Your task to perform on an android device: Open internet settings Image 0: 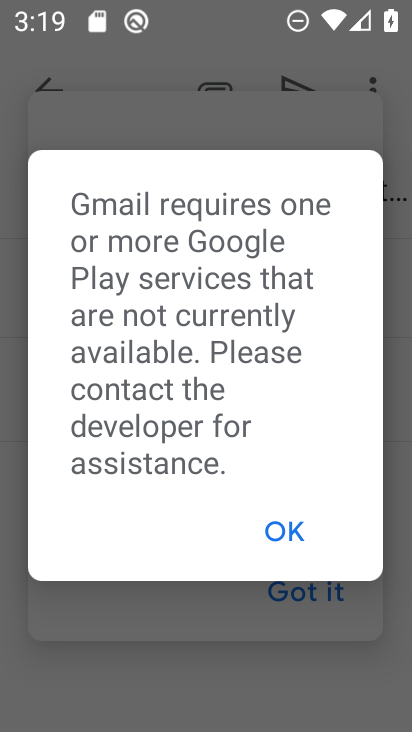
Step 0: press home button
Your task to perform on an android device: Open internet settings Image 1: 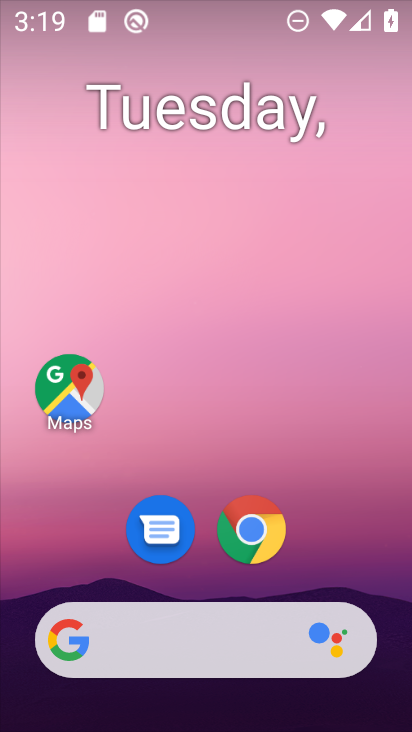
Step 1: drag from (348, 532) to (307, 202)
Your task to perform on an android device: Open internet settings Image 2: 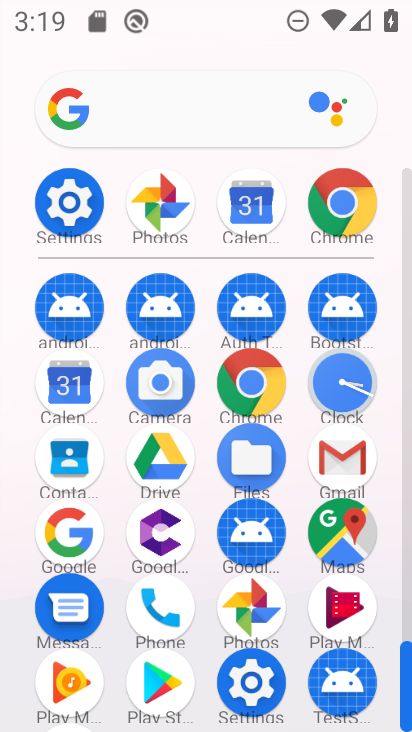
Step 2: click (53, 204)
Your task to perform on an android device: Open internet settings Image 3: 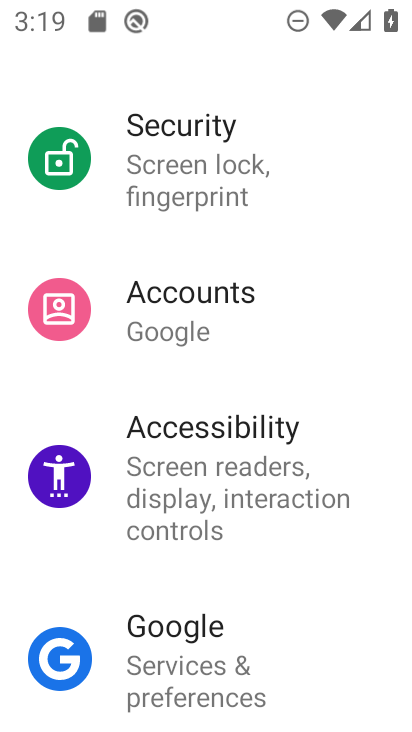
Step 3: drag from (191, 211) to (179, 619)
Your task to perform on an android device: Open internet settings Image 4: 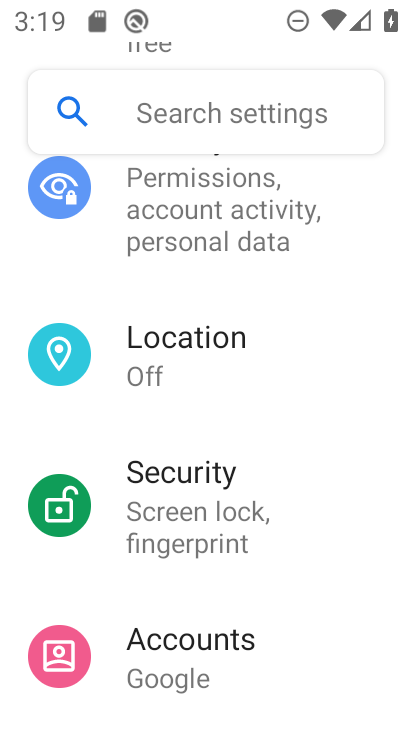
Step 4: drag from (198, 240) to (201, 641)
Your task to perform on an android device: Open internet settings Image 5: 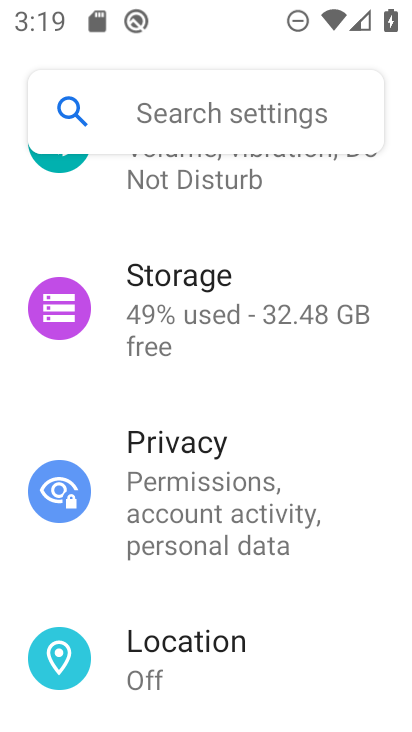
Step 5: drag from (212, 249) to (246, 613)
Your task to perform on an android device: Open internet settings Image 6: 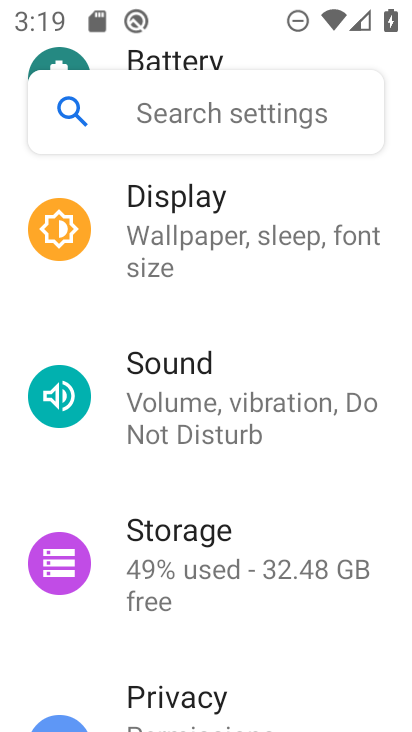
Step 6: drag from (154, 314) to (151, 729)
Your task to perform on an android device: Open internet settings Image 7: 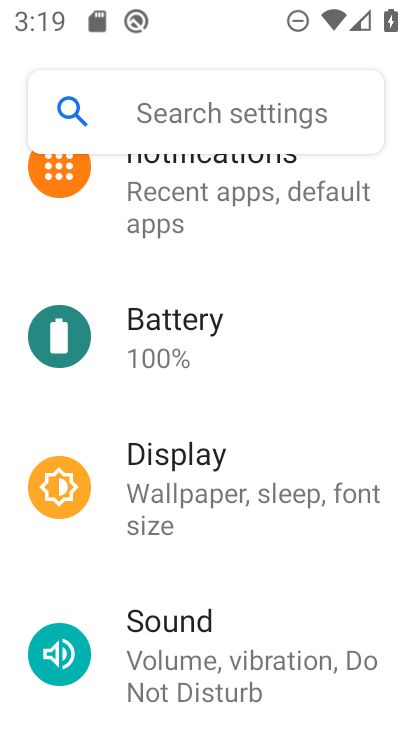
Step 7: drag from (143, 177) to (126, 566)
Your task to perform on an android device: Open internet settings Image 8: 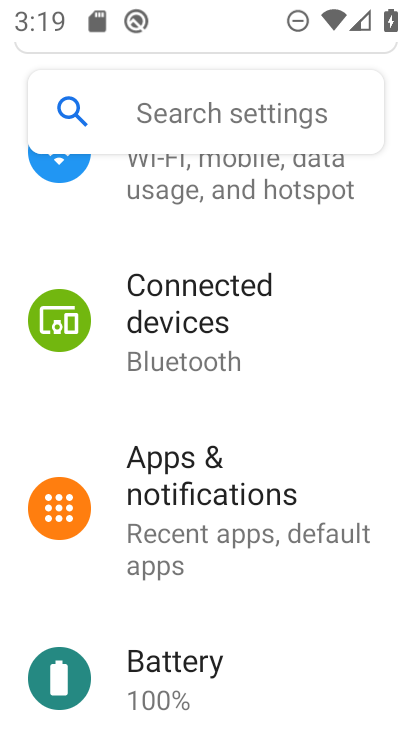
Step 8: drag from (172, 265) to (162, 615)
Your task to perform on an android device: Open internet settings Image 9: 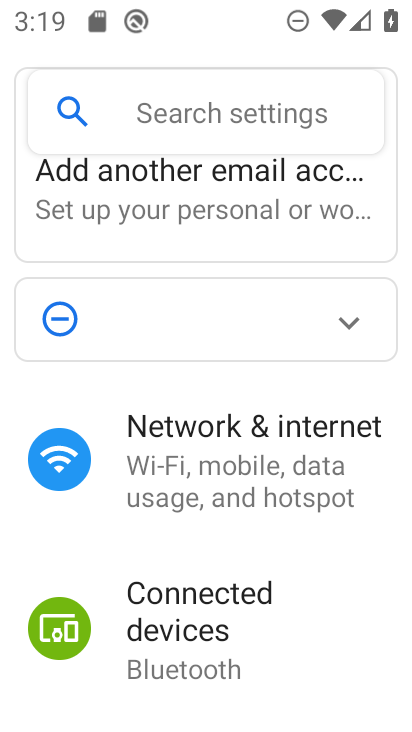
Step 9: click (167, 414)
Your task to perform on an android device: Open internet settings Image 10: 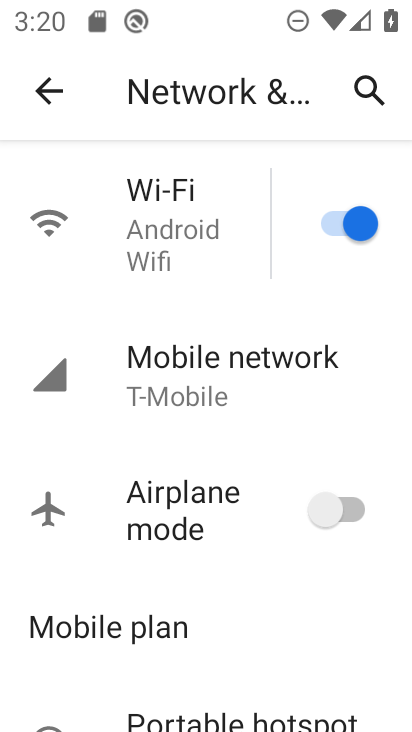
Step 10: task complete